Your task to perform on an android device: Open notification settings Image 0: 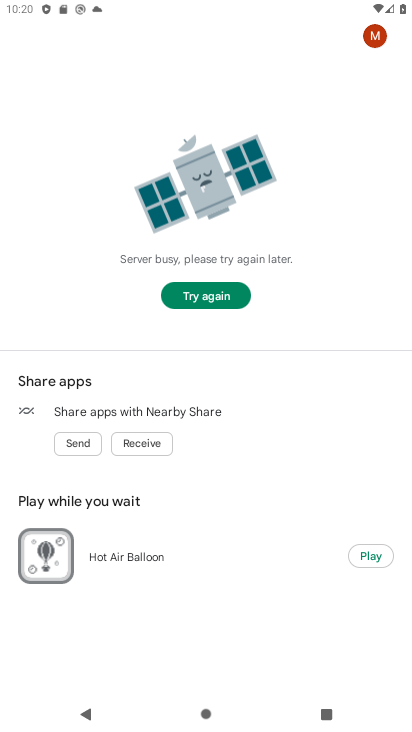
Step 0: press home button
Your task to perform on an android device: Open notification settings Image 1: 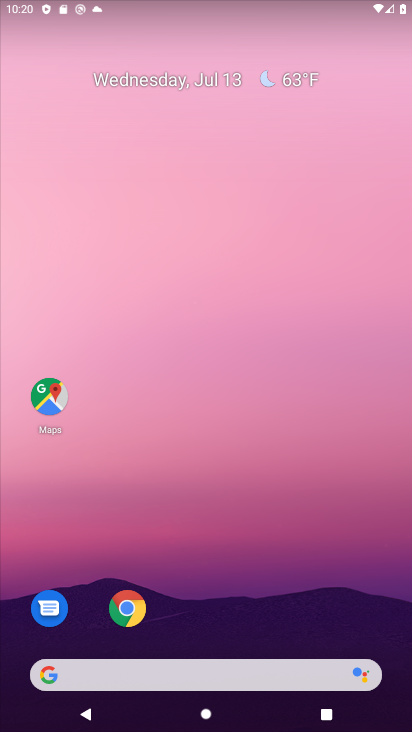
Step 1: drag from (213, 641) to (320, 36)
Your task to perform on an android device: Open notification settings Image 2: 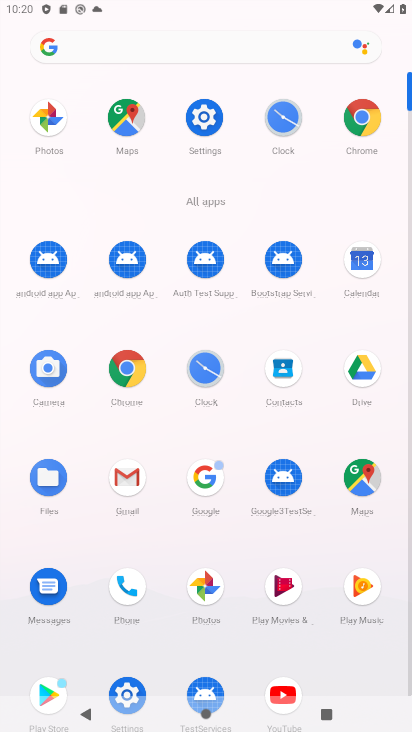
Step 2: drag from (146, 683) to (239, 448)
Your task to perform on an android device: Open notification settings Image 3: 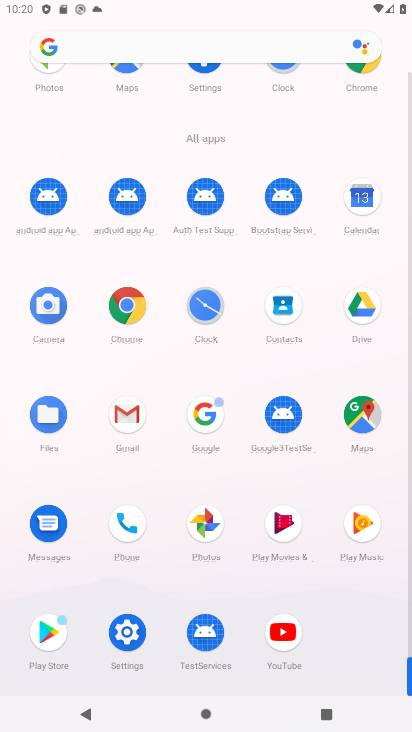
Step 3: click (117, 637)
Your task to perform on an android device: Open notification settings Image 4: 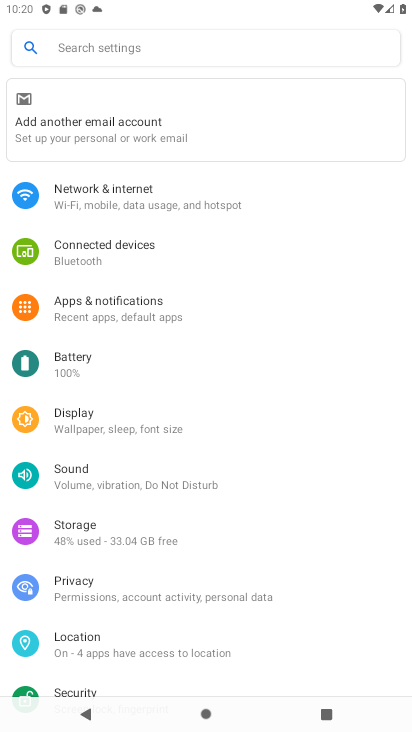
Step 4: click (170, 312)
Your task to perform on an android device: Open notification settings Image 5: 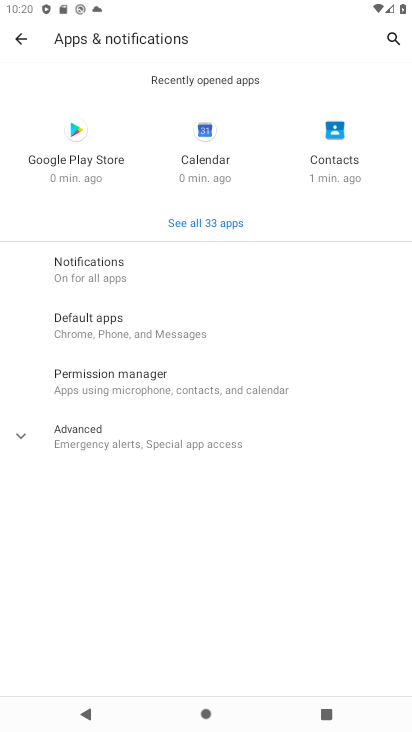
Step 5: click (125, 289)
Your task to perform on an android device: Open notification settings Image 6: 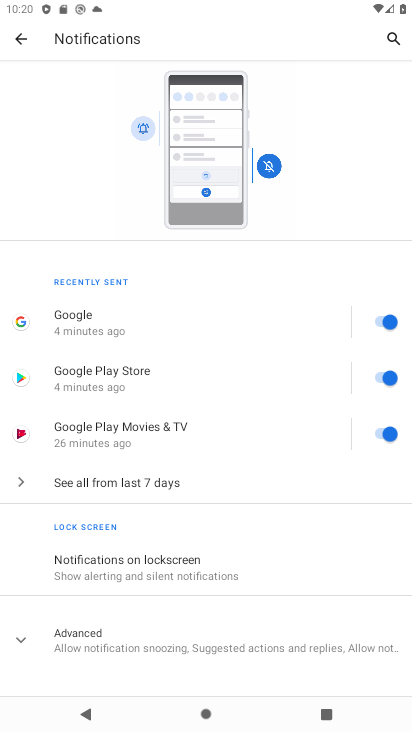
Step 6: task complete